Your task to perform on an android device: Open Youtube and go to the subscriptions tab Image 0: 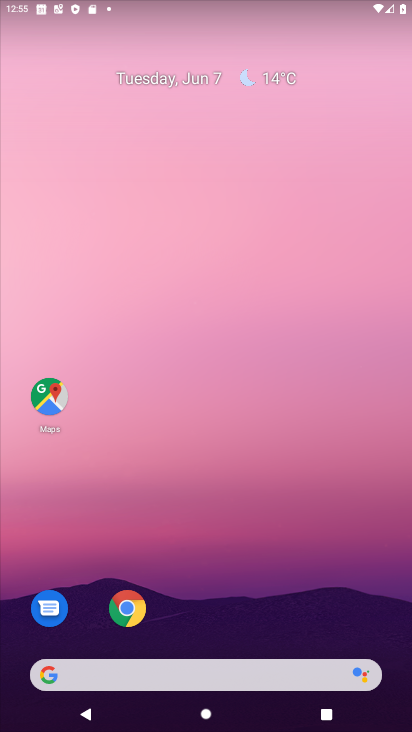
Step 0: drag from (286, 609) to (216, 70)
Your task to perform on an android device: Open Youtube and go to the subscriptions tab Image 1: 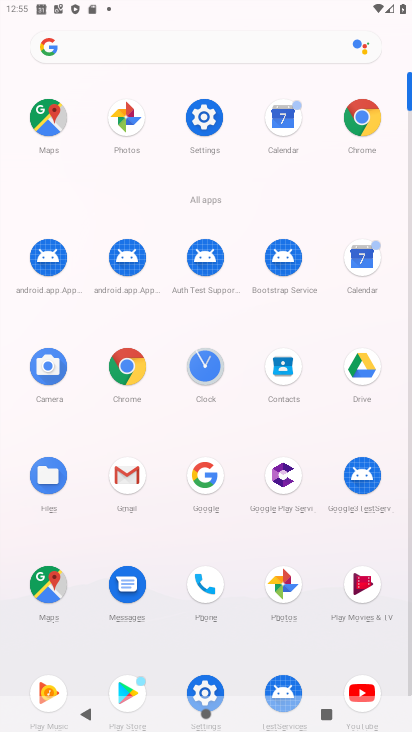
Step 1: drag from (249, 646) to (251, 310)
Your task to perform on an android device: Open Youtube and go to the subscriptions tab Image 2: 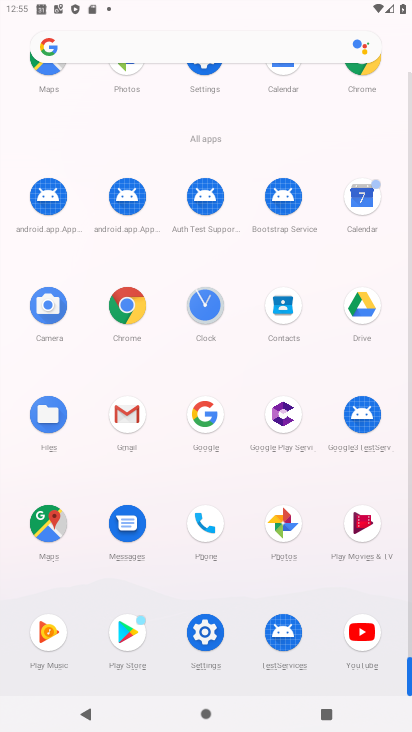
Step 2: click (355, 638)
Your task to perform on an android device: Open Youtube and go to the subscriptions tab Image 3: 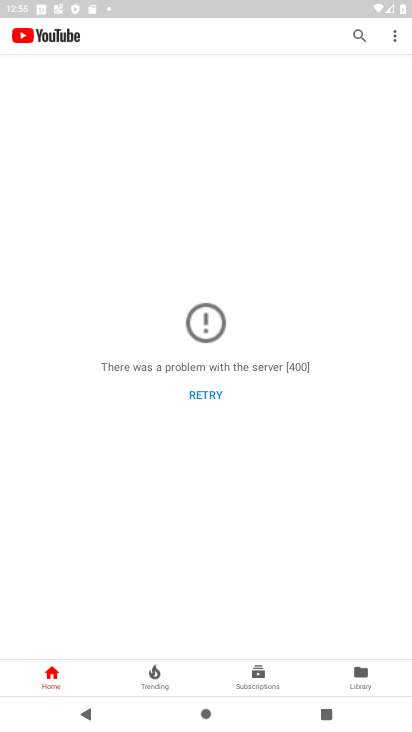
Step 3: click (263, 680)
Your task to perform on an android device: Open Youtube and go to the subscriptions tab Image 4: 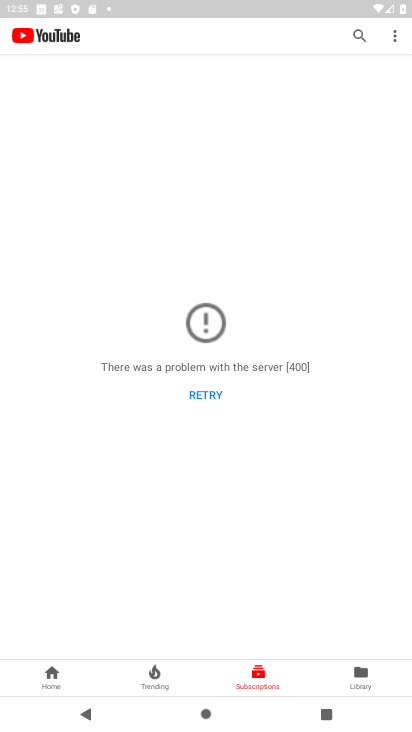
Step 4: click (260, 678)
Your task to perform on an android device: Open Youtube and go to the subscriptions tab Image 5: 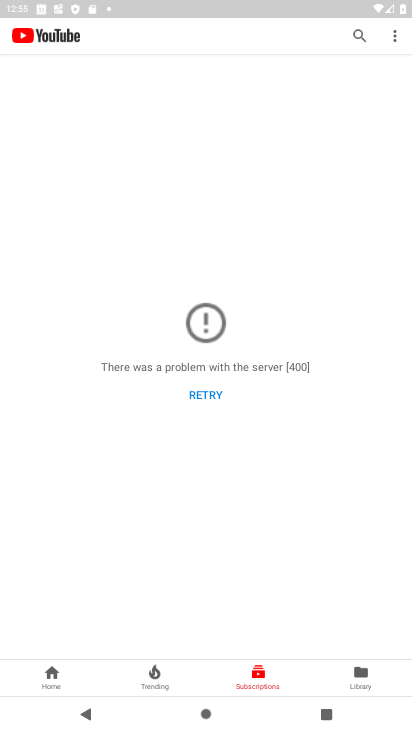
Step 5: task complete